Your task to perform on an android device: Is it going to rain this weekend? Image 0: 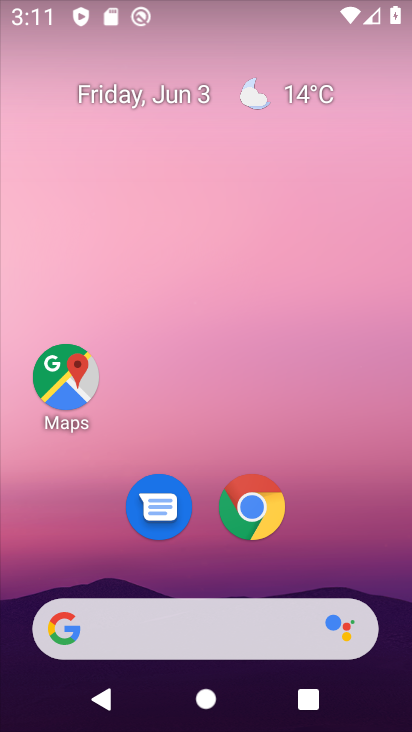
Step 0: click (251, 502)
Your task to perform on an android device: Is it going to rain this weekend? Image 1: 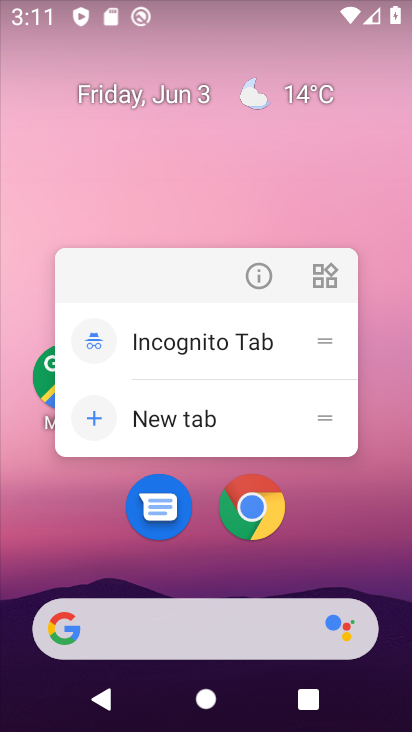
Step 1: click (251, 502)
Your task to perform on an android device: Is it going to rain this weekend? Image 2: 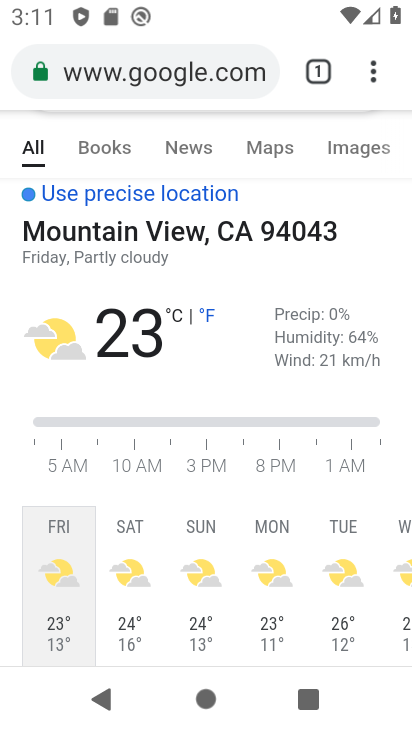
Step 2: click (163, 65)
Your task to perform on an android device: Is it going to rain this weekend? Image 3: 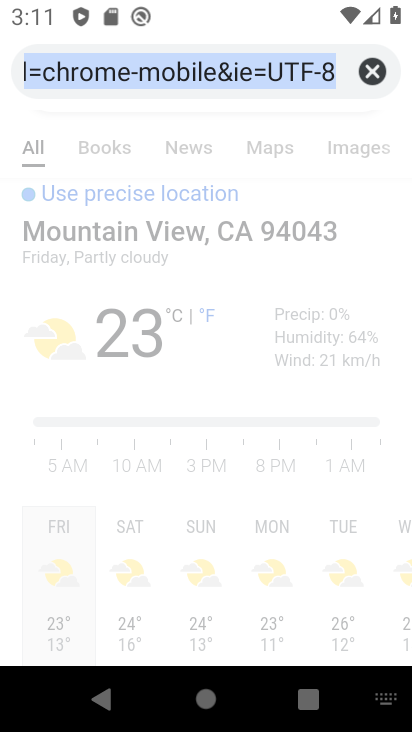
Step 3: type "Is it going to rain this weekend?"
Your task to perform on an android device: Is it going to rain this weekend? Image 4: 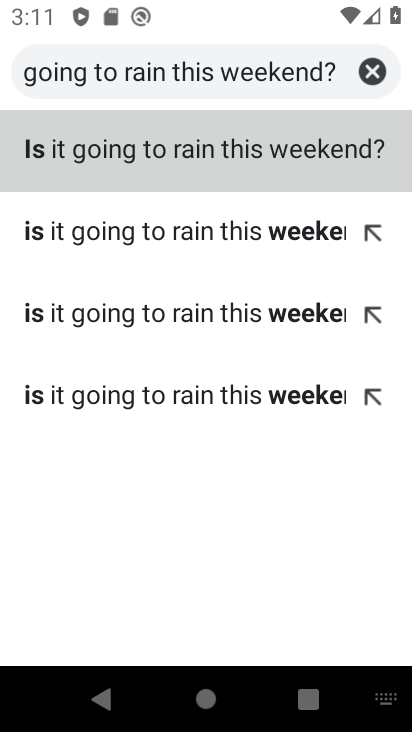
Step 4: click (122, 171)
Your task to perform on an android device: Is it going to rain this weekend? Image 5: 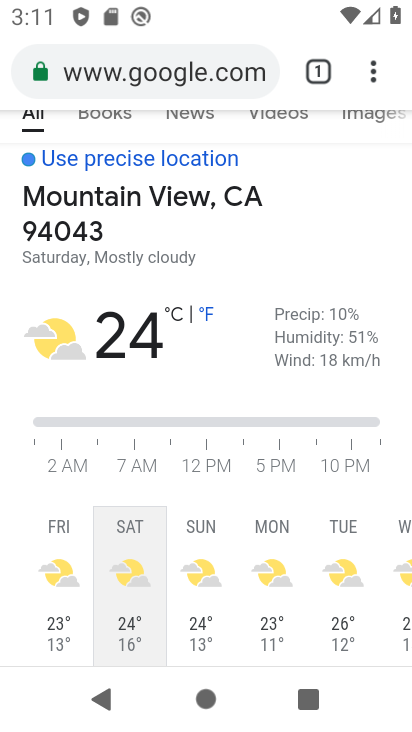
Step 5: task complete